Your task to perform on an android device: Add sony triple a to the cart on ebay.com Image 0: 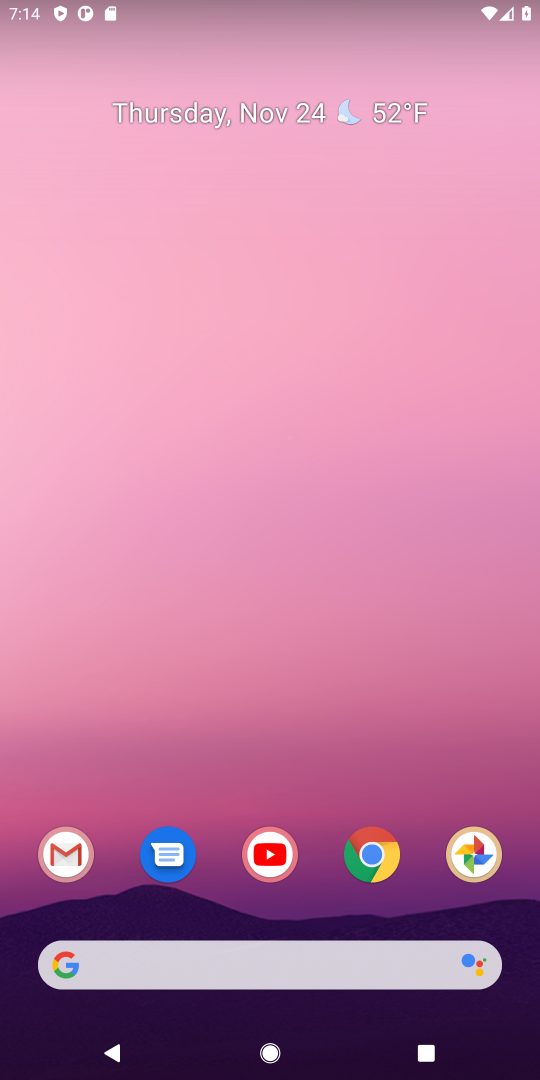
Step 0: click (378, 858)
Your task to perform on an android device: Add sony triple a to the cart on ebay.com Image 1: 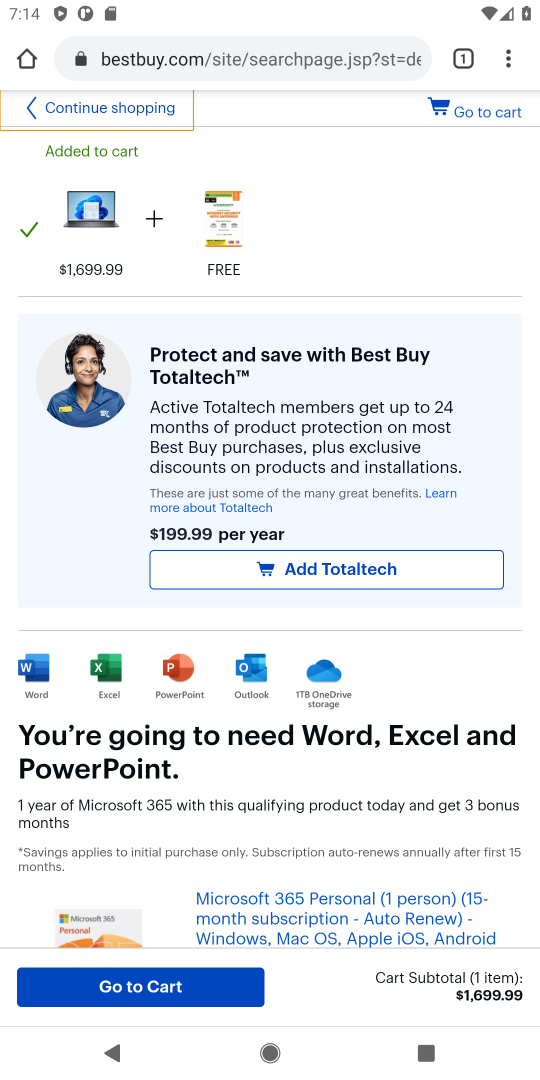
Step 1: click (196, 56)
Your task to perform on an android device: Add sony triple a to the cart on ebay.com Image 2: 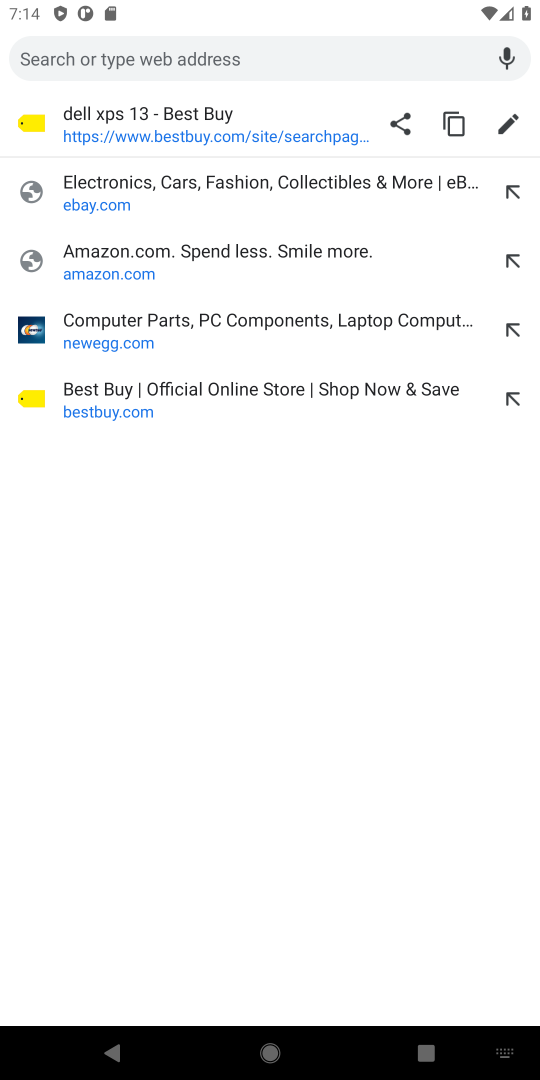
Step 2: click (90, 196)
Your task to perform on an android device: Add sony triple a to the cart on ebay.com Image 3: 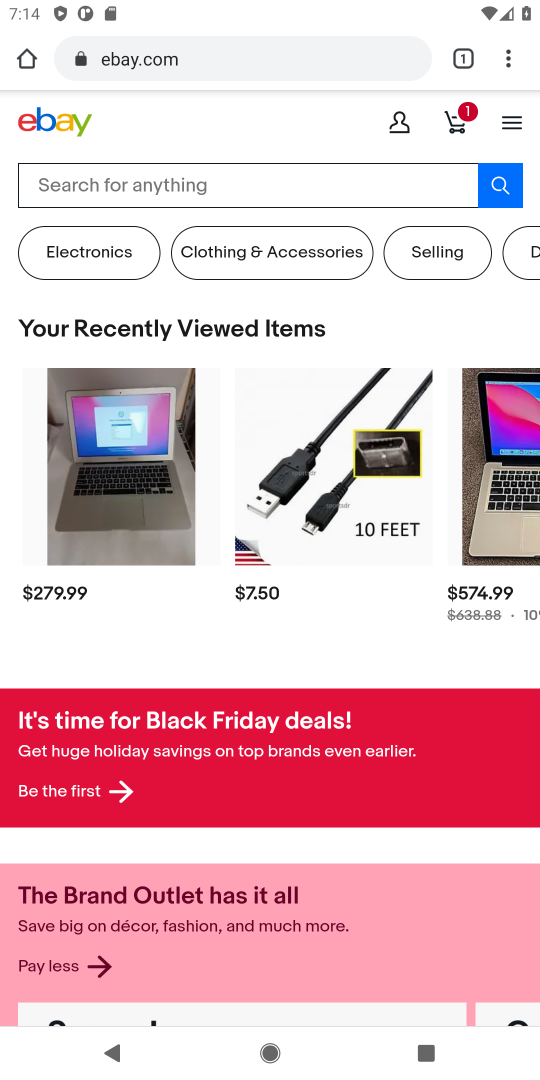
Step 3: click (247, 191)
Your task to perform on an android device: Add sony triple a to the cart on ebay.com Image 4: 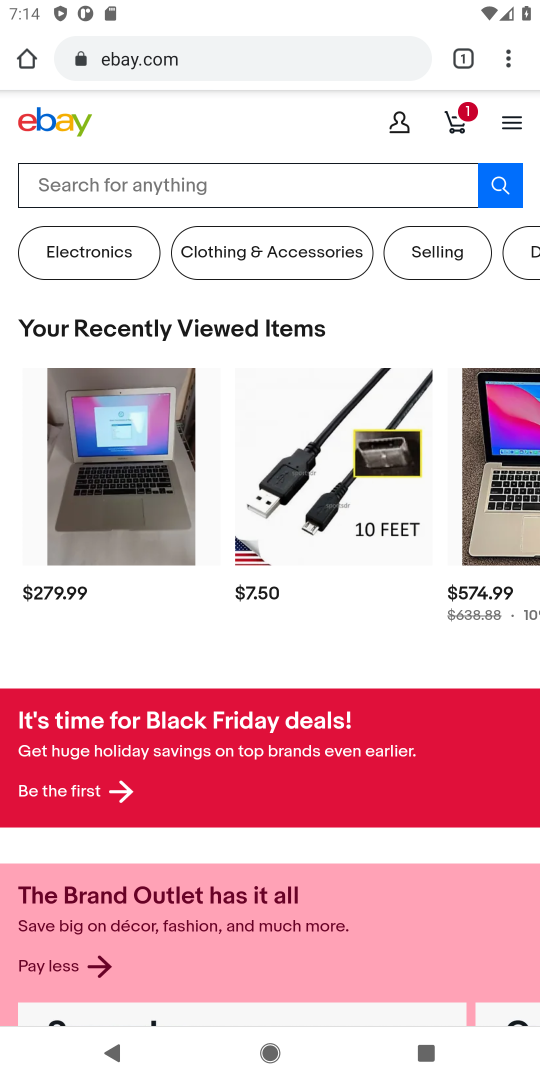
Step 4: click (247, 191)
Your task to perform on an android device: Add sony triple a to the cart on ebay.com Image 5: 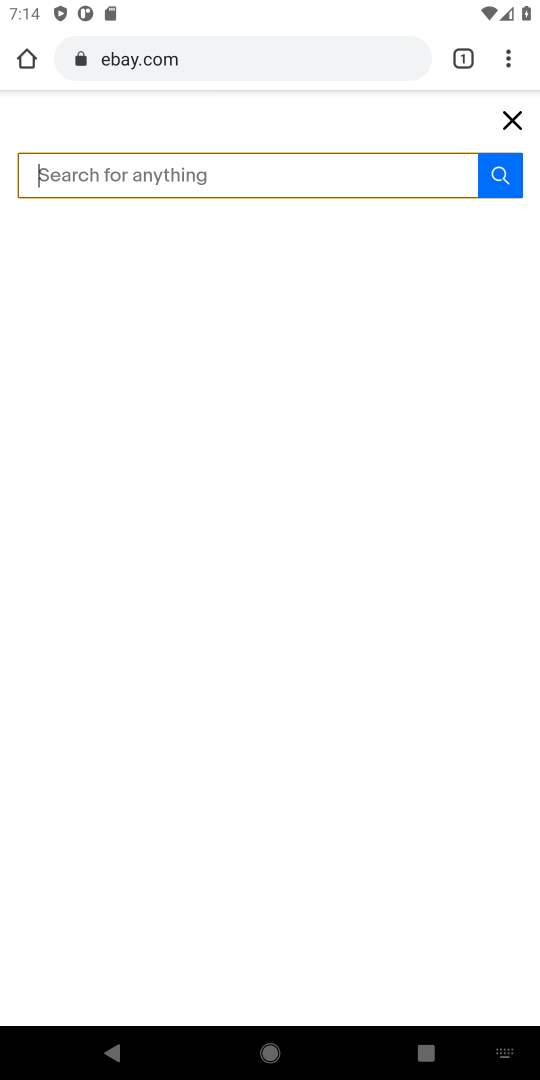
Step 5: type "sony triple a "
Your task to perform on an android device: Add sony triple a to the cart on ebay.com Image 6: 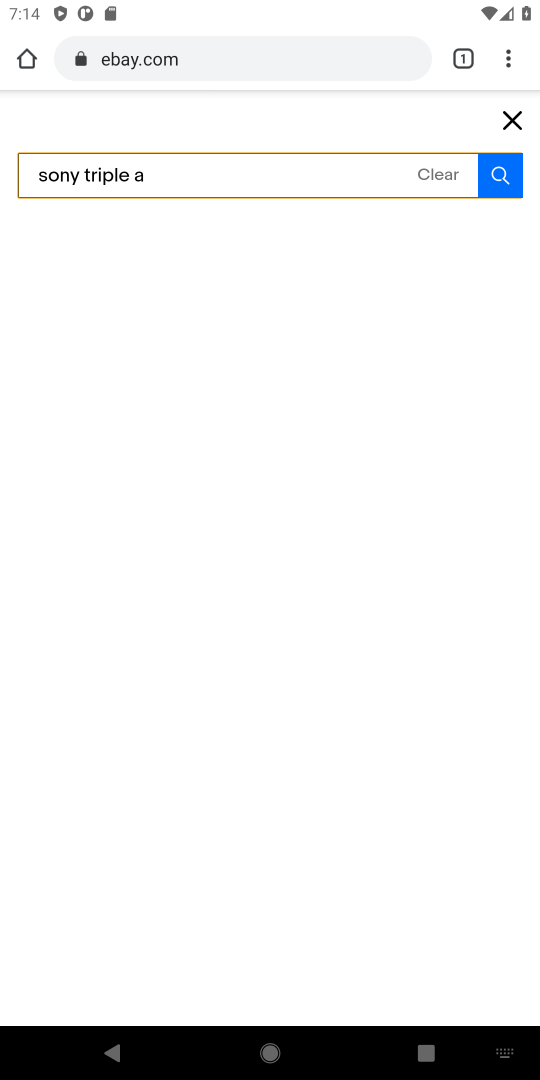
Step 6: click (496, 179)
Your task to perform on an android device: Add sony triple a to the cart on ebay.com Image 7: 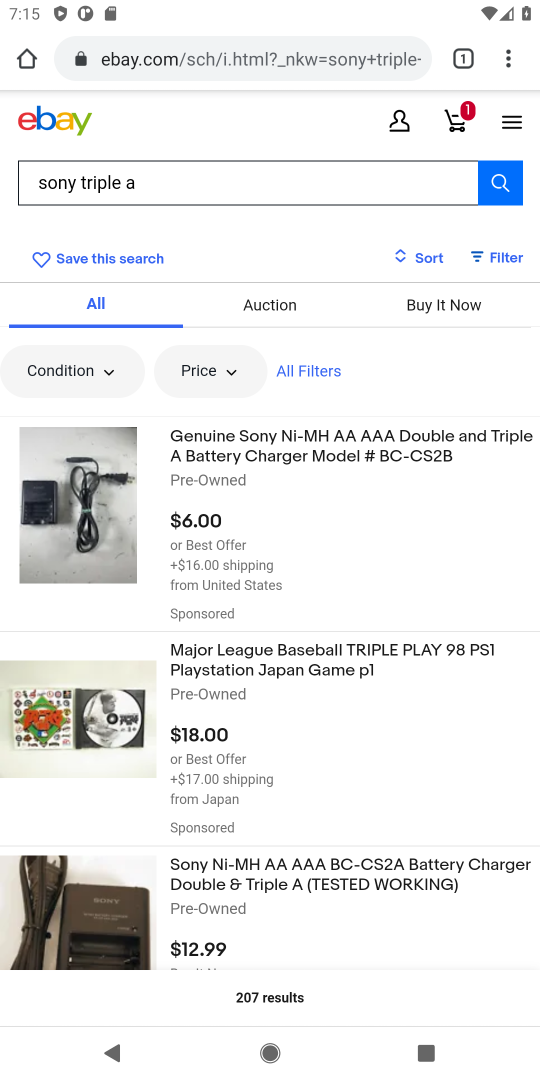
Step 7: click (88, 535)
Your task to perform on an android device: Add sony triple a to the cart on ebay.com Image 8: 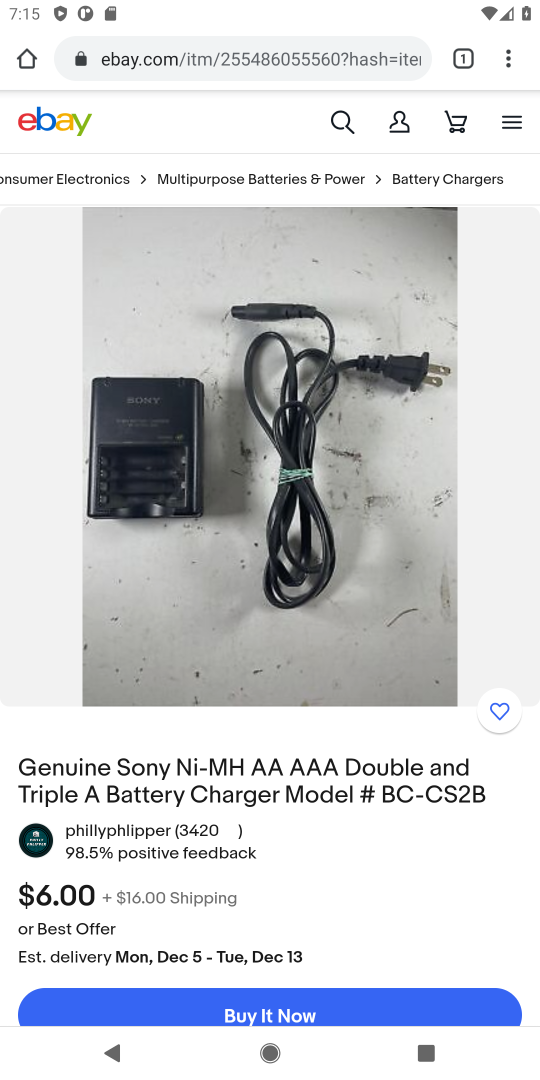
Step 8: drag from (239, 689) to (197, 304)
Your task to perform on an android device: Add sony triple a to the cart on ebay.com Image 9: 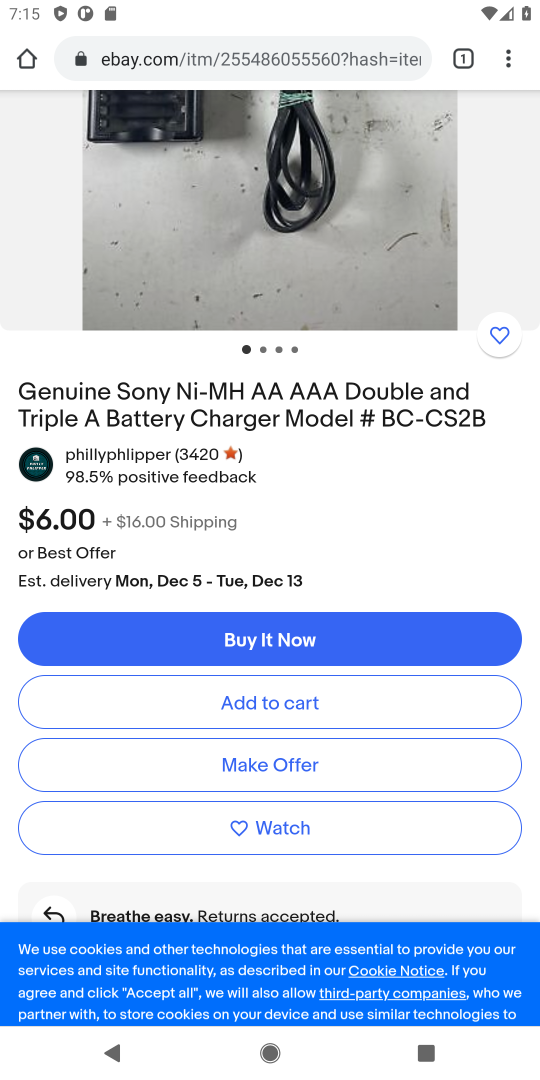
Step 9: drag from (280, 693) to (282, 541)
Your task to perform on an android device: Add sony triple a to the cart on ebay.com Image 10: 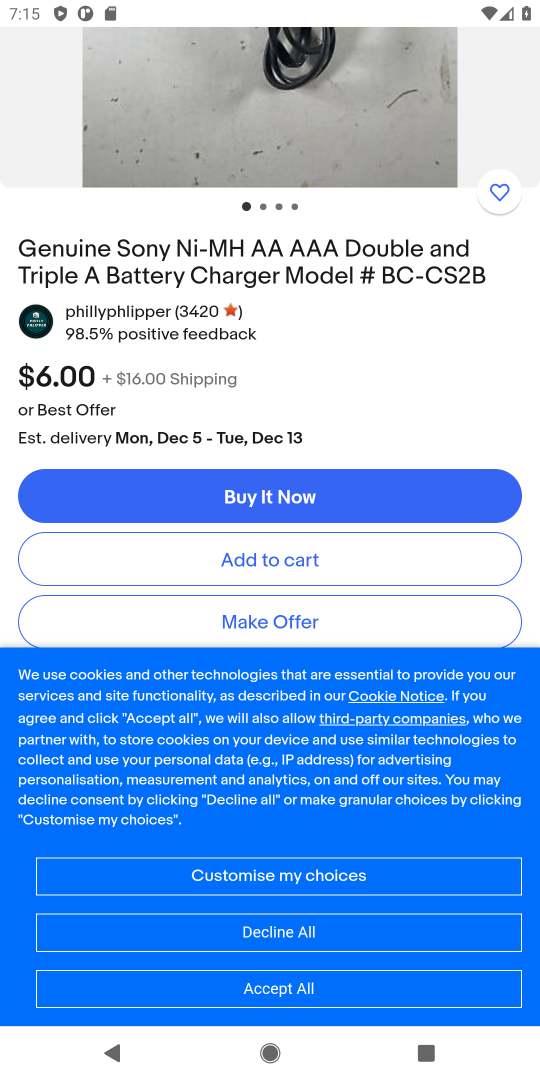
Step 10: click (267, 553)
Your task to perform on an android device: Add sony triple a to the cart on ebay.com Image 11: 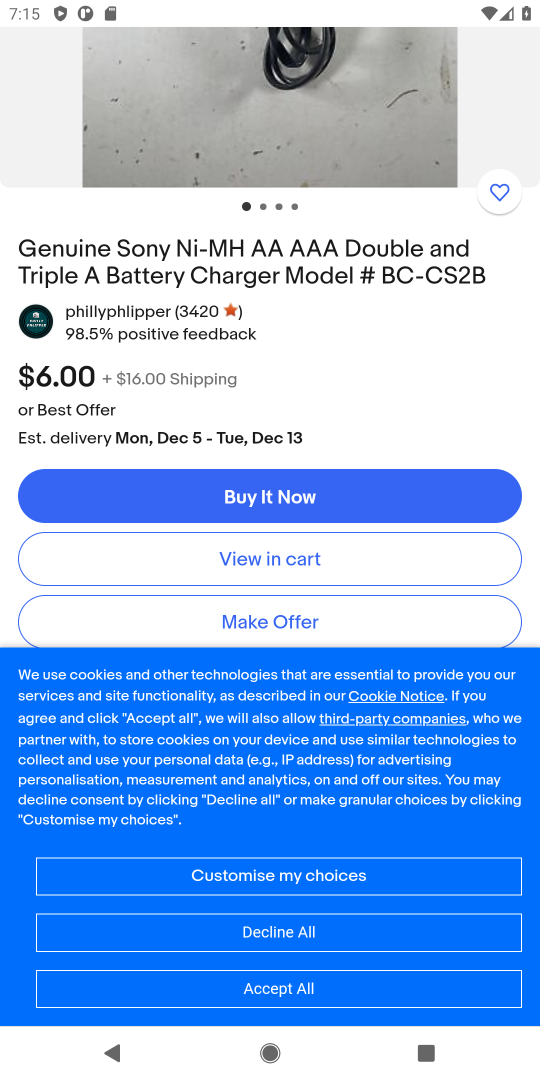
Step 11: task complete